Your task to perform on an android device: Clear the shopping cart on amazon.com. Add "logitech g pro" to the cart on amazon.com, then select checkout. Image 0: 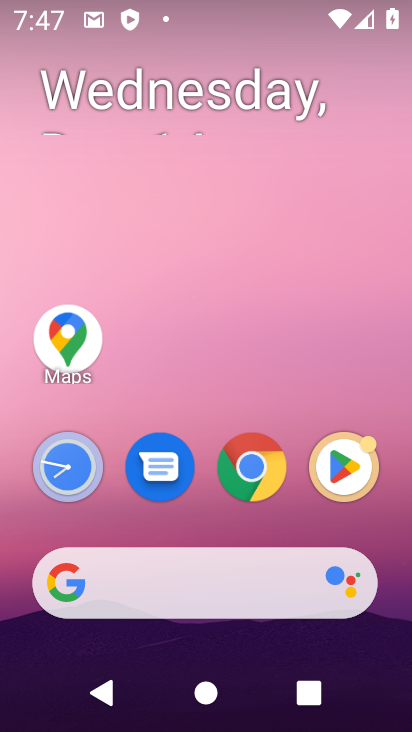
Step 0: click (222, 573)
Your task to perform on an android device: Clear the shopping cart on amazon.com. Add "logitech g pro" to the cart on amazon.com, then select checkout. Image 1: 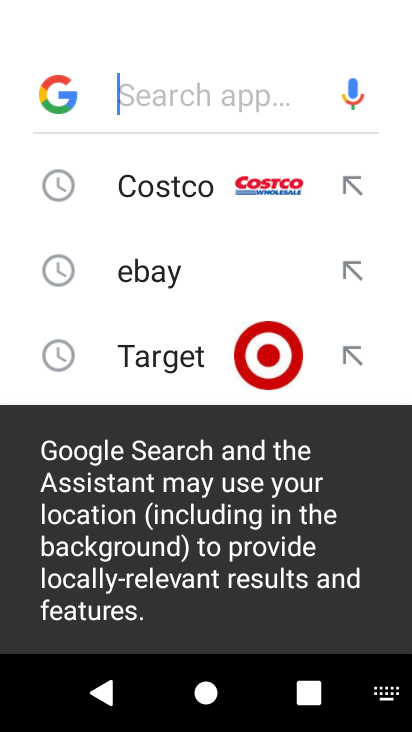
Step 1: type "mazon"
Your task to perform on an android device: Clear the shopping cart on amazon.com. Add "logitech g pro" to the cart on amazon.com, then select checkout. Image 2: 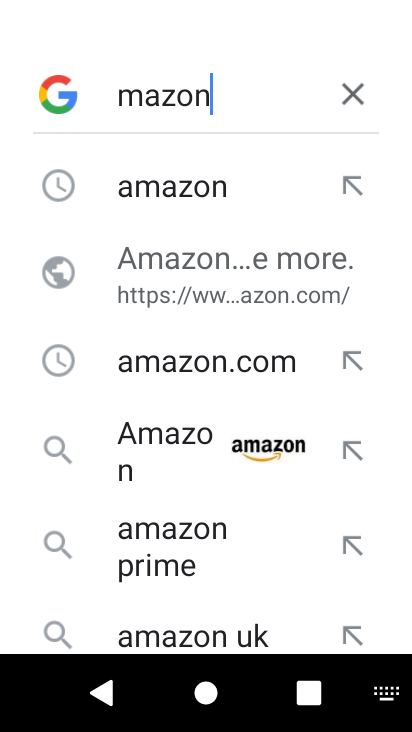
Step 2: click (234, 189)
Your task to perform on an android device: Clear the shopping cart on amazon.com. Add "logitech g pro" to the cart on amazon.com, then select checkout. Image 3: 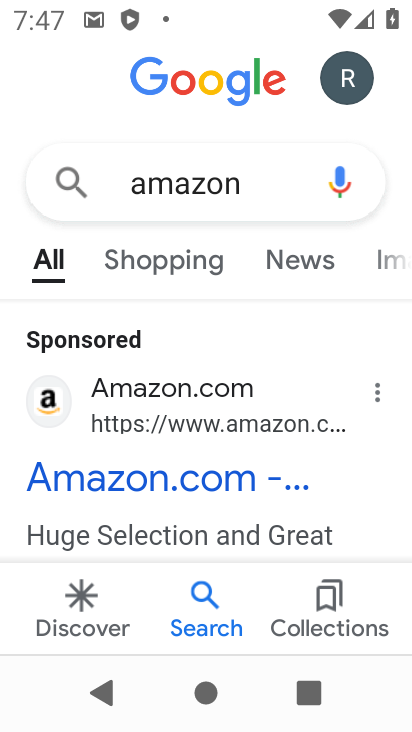
Step 3: click (112, 475)
Your task to perform on an android device: Clear the shopping cart on amazon.com. Add "logitech g pro" to the cart on amazon.com, then select checkout. Image 4: 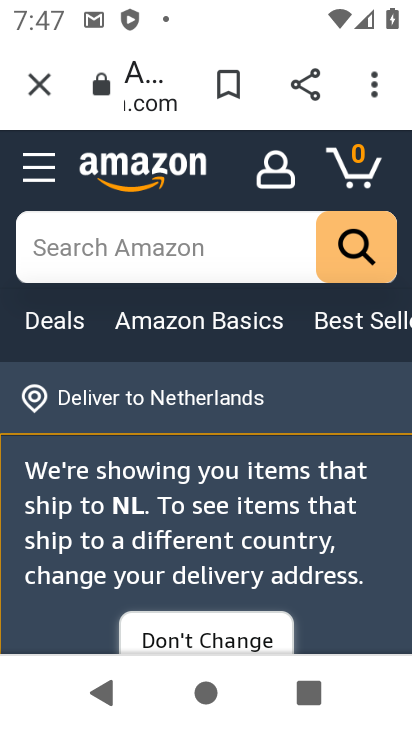
Step 4: click (143, 249)
Your task to perform on an android device: Clear the shopping cart on amazon.com. Add "logitech g pro" to the cart on amazon.com, then select checkout. Image 5: 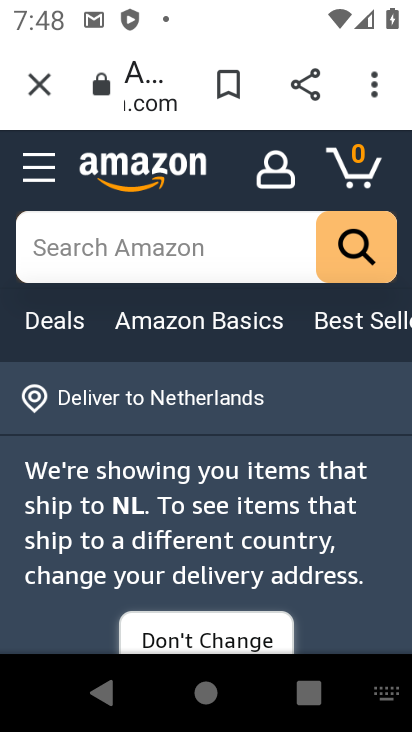
Step 5: type "logitech g pro"
Your task to perform on an android device: Clear the shopping cart on amazon.com. Add "logitech g pro" to the cart on amazon.com, then select checkout. Image 6: 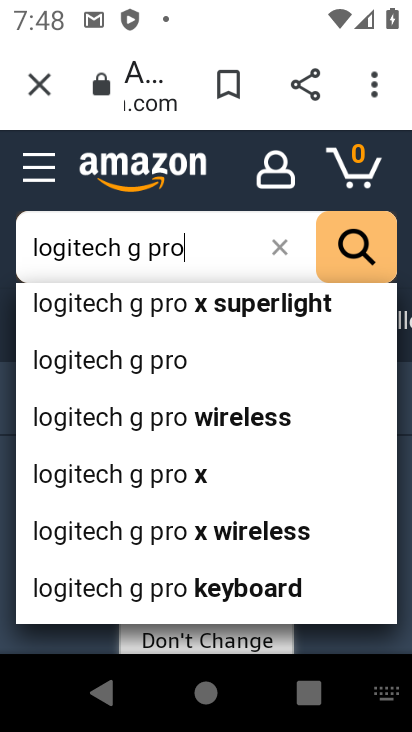
Step 6: click (95, 359)
Your task to perform on an android device: Clear the shopping cart on amazon.com. Add "logitech g pro" to the cart on amazon.com, then select checkout. Image 7: 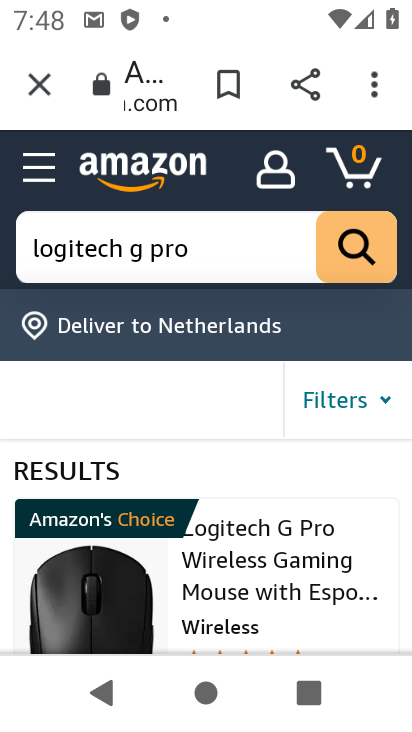
Step 7: drag from (187, 609) to (196, 271)
Your task to perform on an android device: Clear the shopping cart on amazon.com. Add "logitech g pro" to the cart on amazon.com, then select checkout. Image 8: 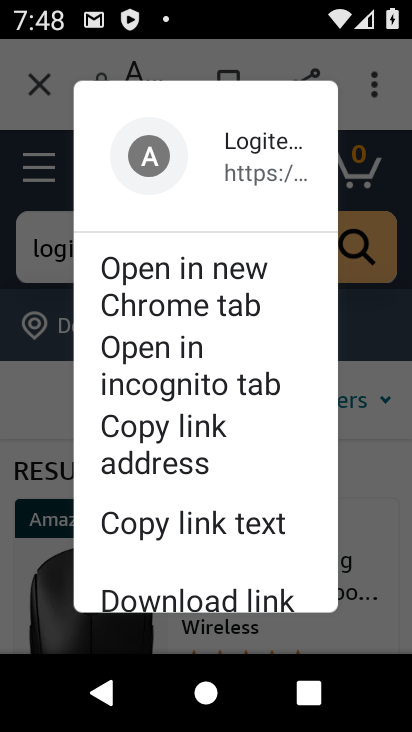
Step 8: click (346, 445)
Your task to perform on an android device: Clear the shopping cart on amazon.com. Add "logitech g pro" to the cart on amazon.com, then select checkout. Image 9: 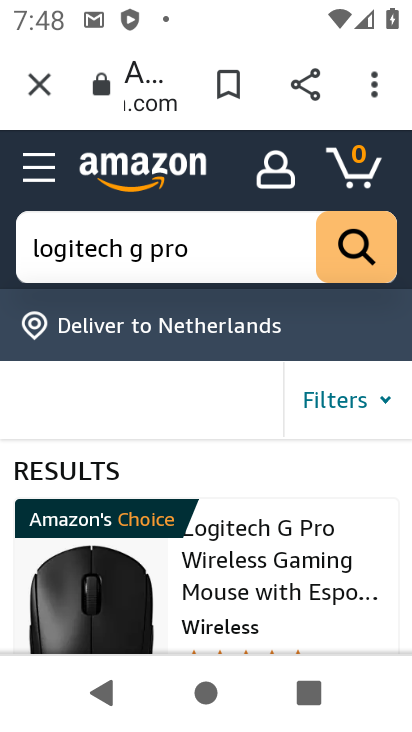
Step 9: drag from (259, 547) to (259, 441)
Your task to perform on an android device: Clear the shopping cart on amazon.com. Add "logitech g pro" to the cart on amazon.com, then select checkout. Image 10: 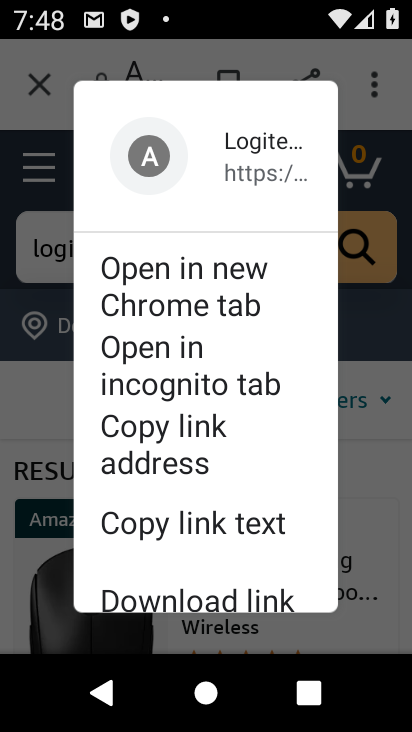
Step 10: click (380, 457)
Your task to perform on an android device: Clear the shopping cart on amazon.com. Add "logitech g pro" to the cart on amazon.com, then select checkout. Image 11: 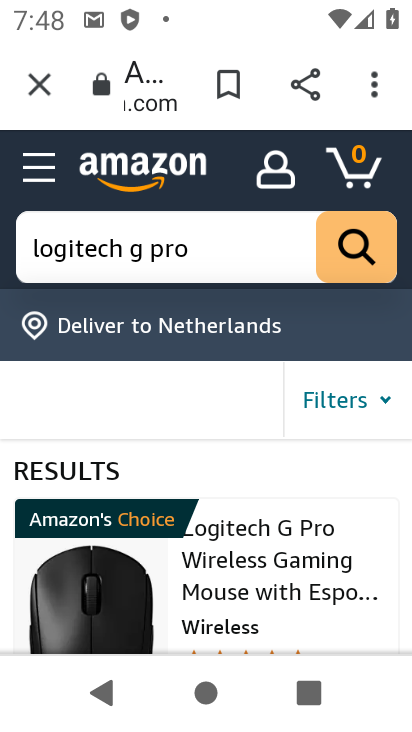
Step 11: task complete